Your task to perform on an android device: change the clock display to show seconds Image 0: 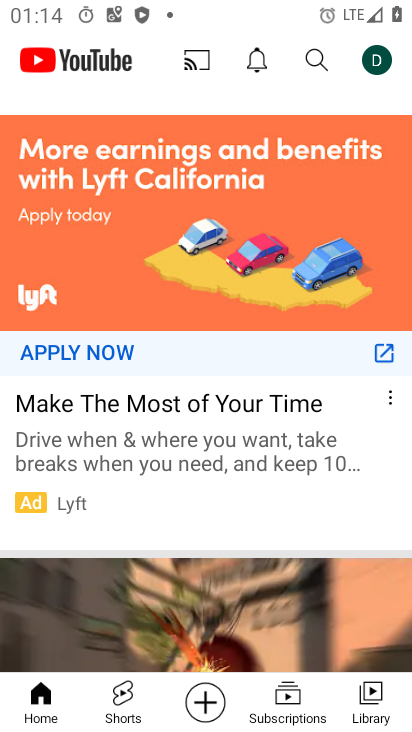
Step 0: press home button
Your task to perform on an android device: change the clock display to show seconds Image 1: 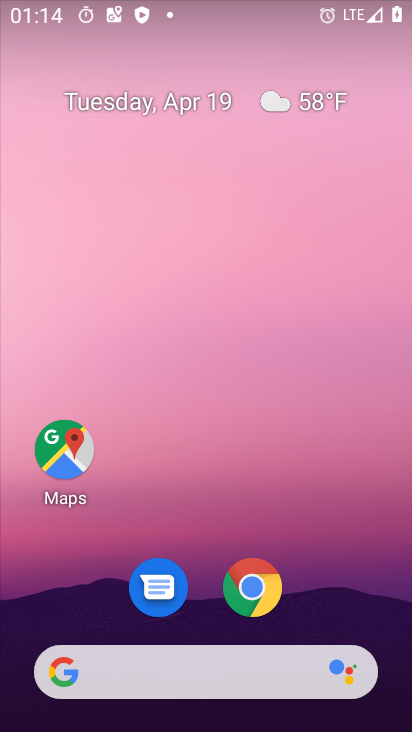
Step 1: drag from (354, 530) to (324, 158)
Your task to perform on an android device: change the clock display to show seconds Image 2: 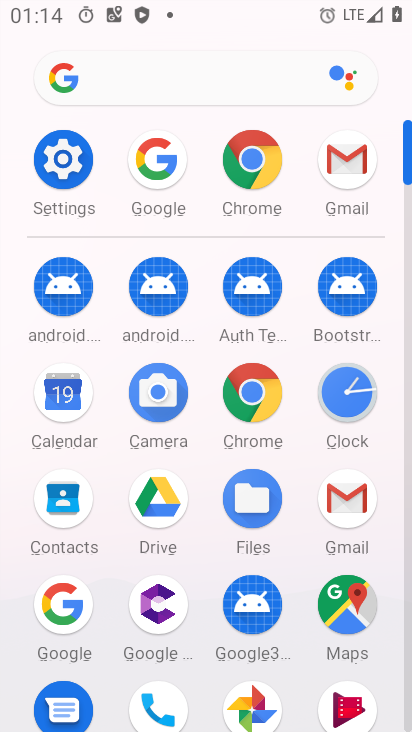
Step 2: drag from (293, 544) to (306, 264)
Your task to perform on an android device: change the clock display to show seconds Image 3: 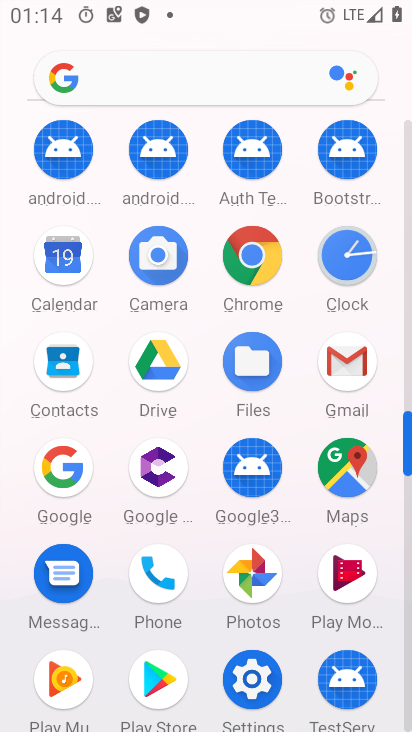
Step 3: click (357, 257)
Your task to perform on an android device: change the clock display to show seconds Image 4: 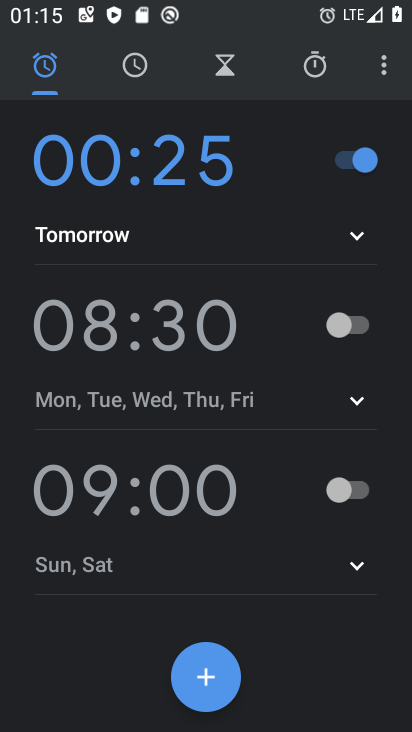
Step 4: click (390, 80)
Your task to perform on an android device: change the clock display to show seconds Image 5: 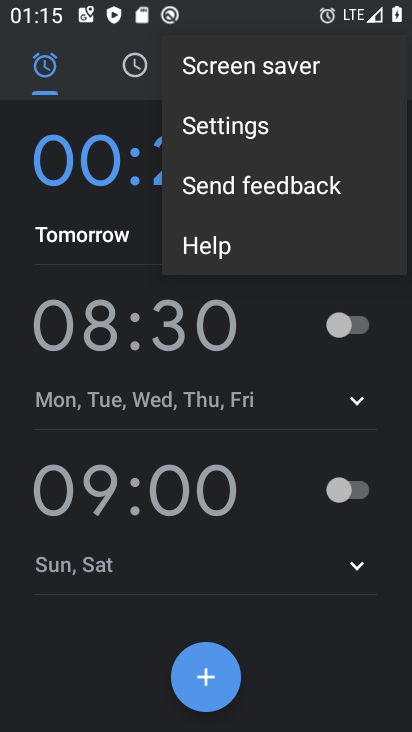
Step 5: click (259, 134)
Your task to perform on an android device: change the clock display to show seconds Image 6: 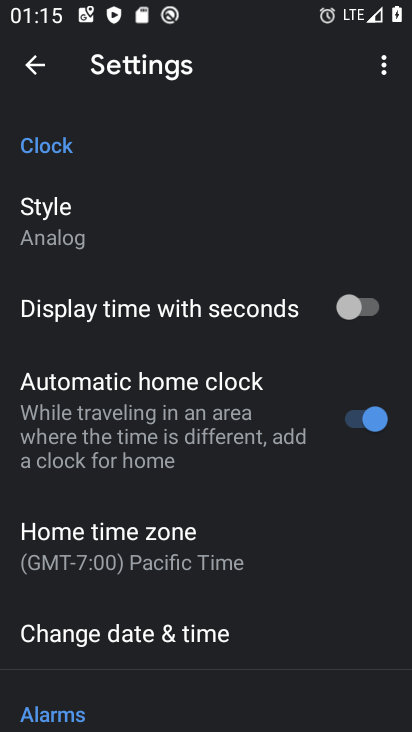
Step 6: click (374, 303)
Your task to perform on an android device: change the clock display to show seconds Image 7: 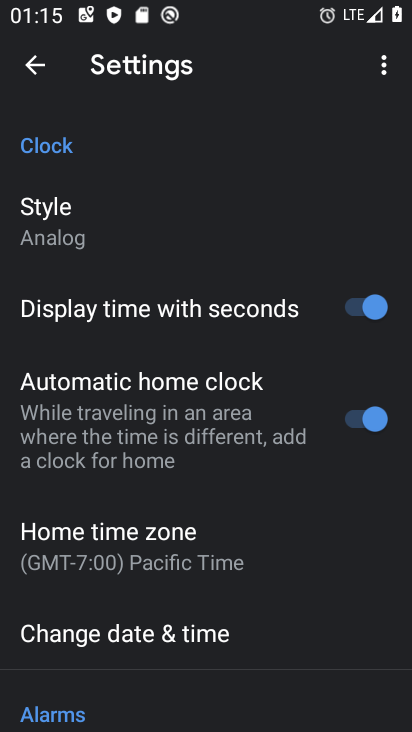
Step 7: task complete